Your task to perform on an android device: When is my next meeting? Image 0: 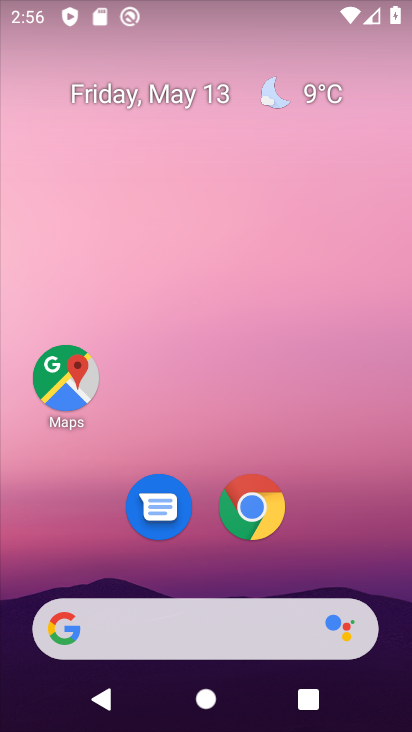
Step 0: drag from (247, 644) to (282, 16)
Your task to perform on an android device: When is my next meeting? Image 1: 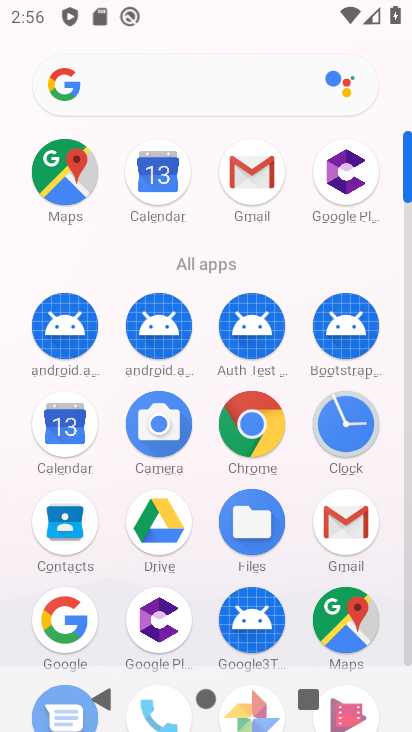
Step 1: click (142, 180)
Your task to perform on an android device: When is my next meeting? Image 2: 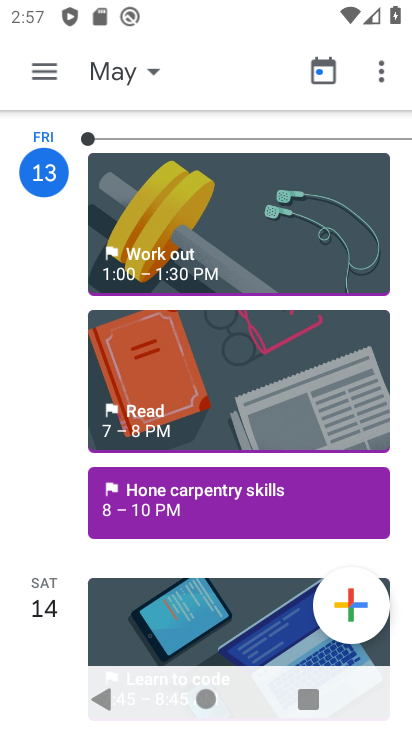
Step 2: task complete